Your task to perform on an android device: Open accessibility settings Image 0: 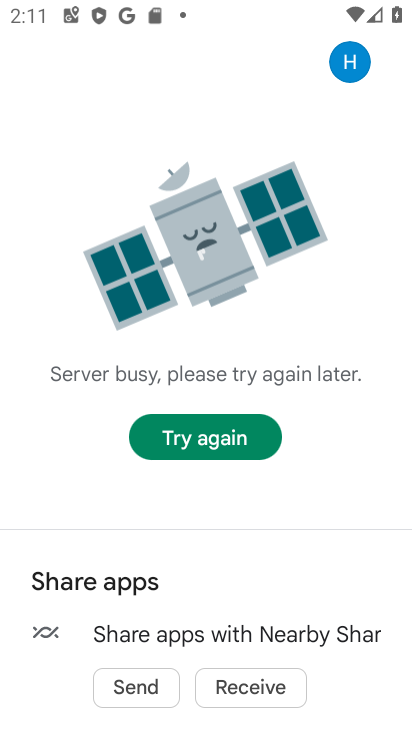
Step 0: press home button
Your task to perform on an android device: Open accessibility settings Image 1: 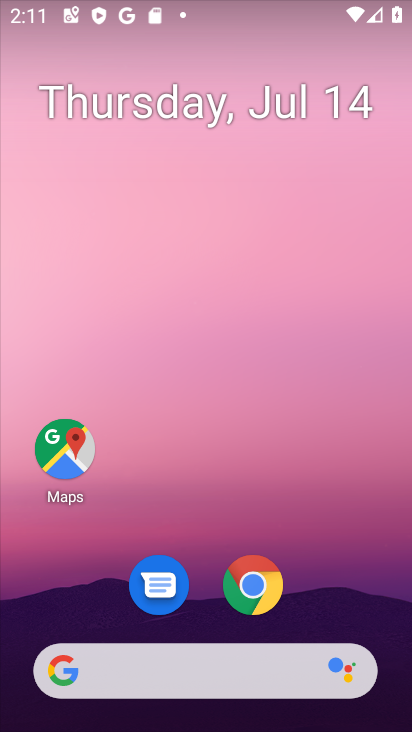
Step 1: drag from (316, 576) to (277, 21)
Your task to perform on an android device: Open accessibility settings Image 2: 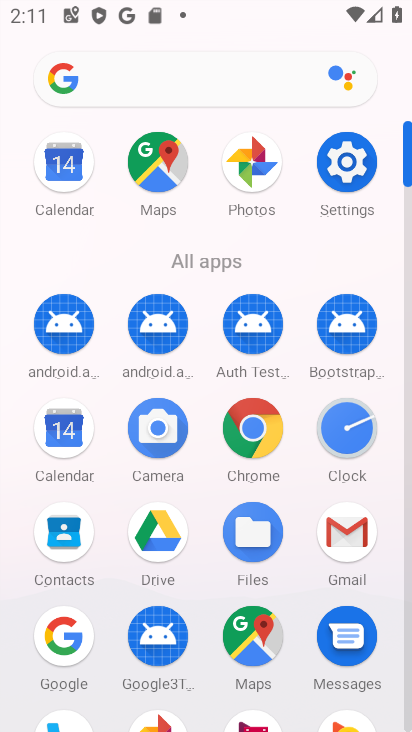
Step 2: click (345, 168)
Your task to perform on an android device: Open accessibility settings Image 3: 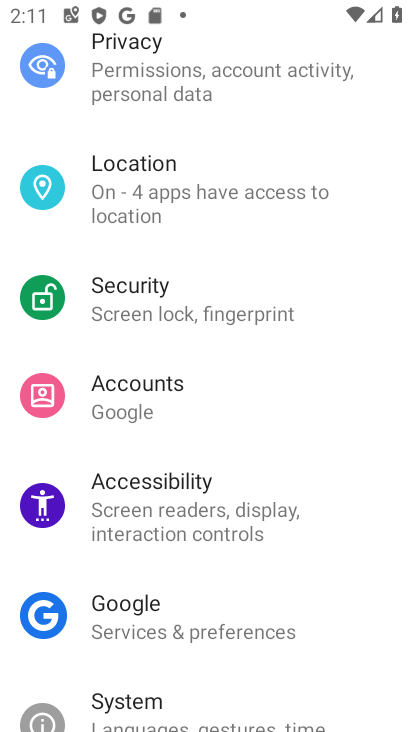
Step 3: click (232, 512)
Your task to perform on an android device: Open accessibility settings Image 4: 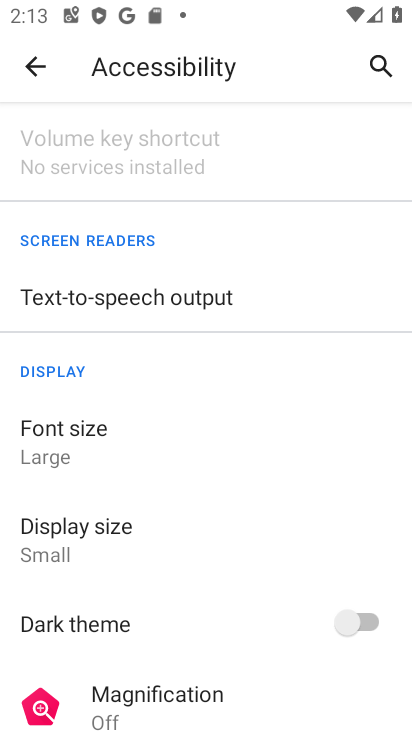
Step 4: task complete